Your task to perform on an android device: show emergency info Image 0: 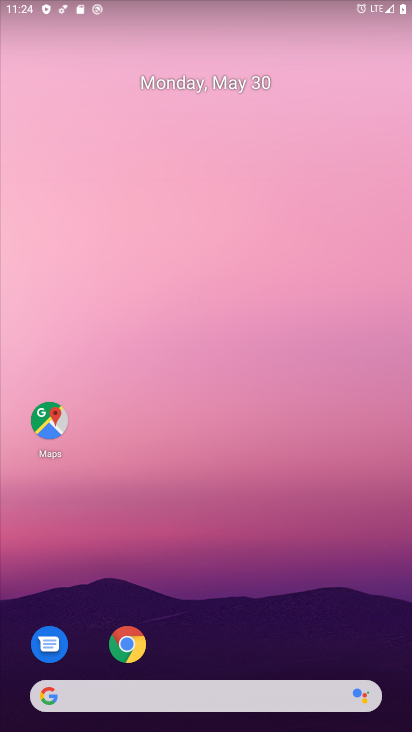
Step 0: drag from (282, 643) to (294, 367)
Your task to perform on an android device: show emergency info Image 1: 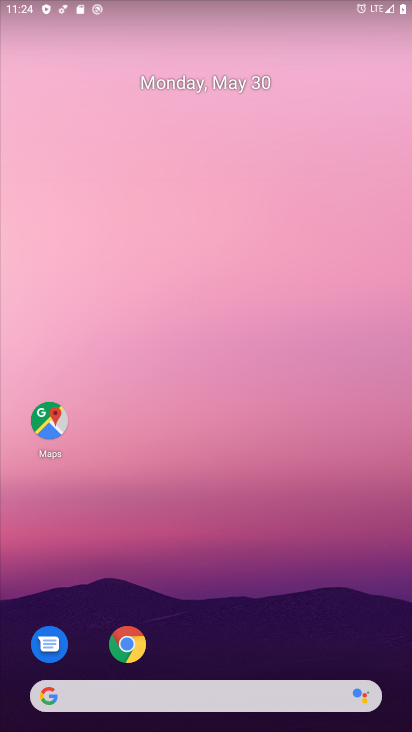
Step 1: drag from (307, 668) to (270, 38)
Your task to perform on an android device: show emergency info Image 2: 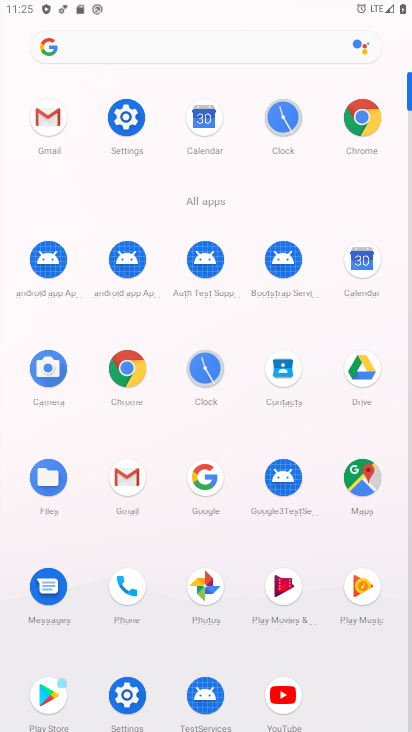
Step 2: click (138, 138)
Your task to perform on an android device: show emergency info Image 3: 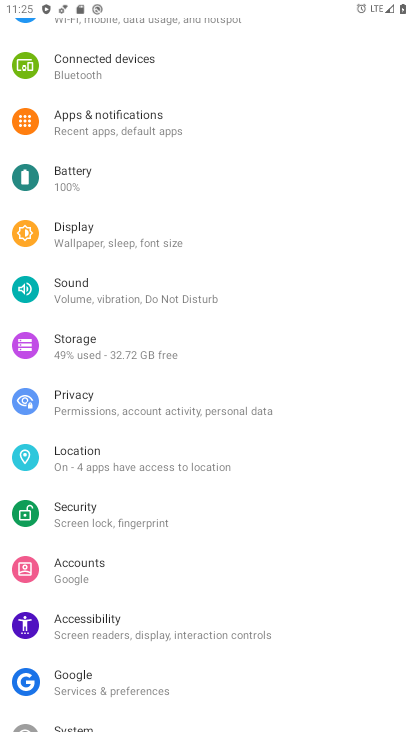
Step 3: drag from (74, 469) to (124, 107)
Your task to perform on an android device: show emergency info Image 4: 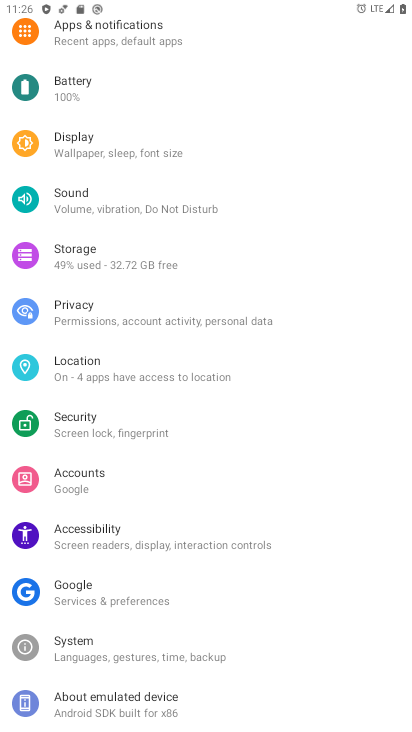
Step 4: click (184, 707)
Your task to perform on an android device: show emergency info Image 5: 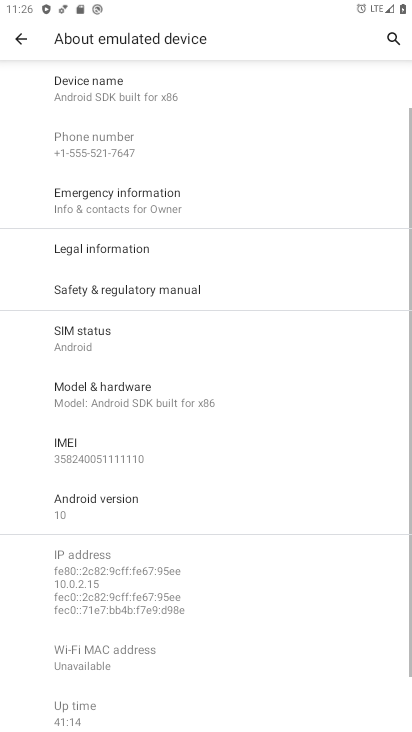
Step 5: click (139, 217)
Your task to perform on an android device: show emergency info Image 6: 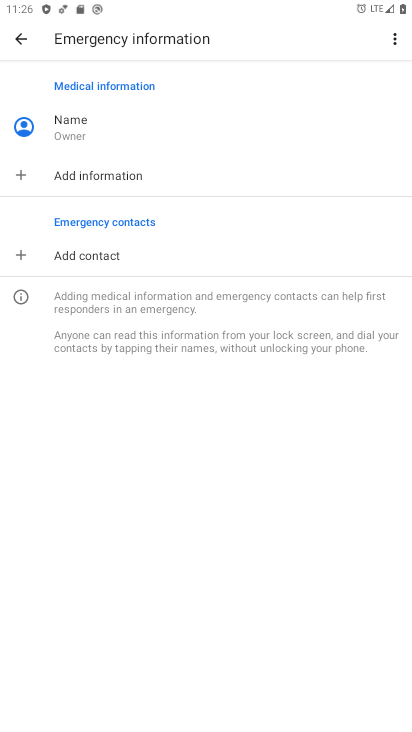
Step 6: task complete